Your task to perform on an android device: Open settings Image 0: 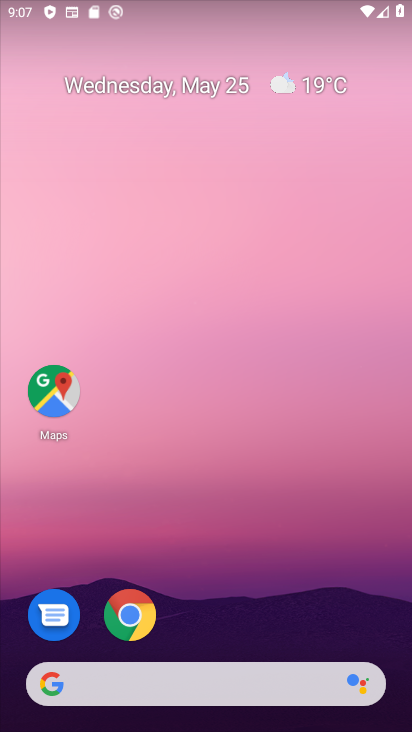
Step 0: drag from (277, 708) to (238, 133)
Your task to perform on an android device: Open settings Image 1: 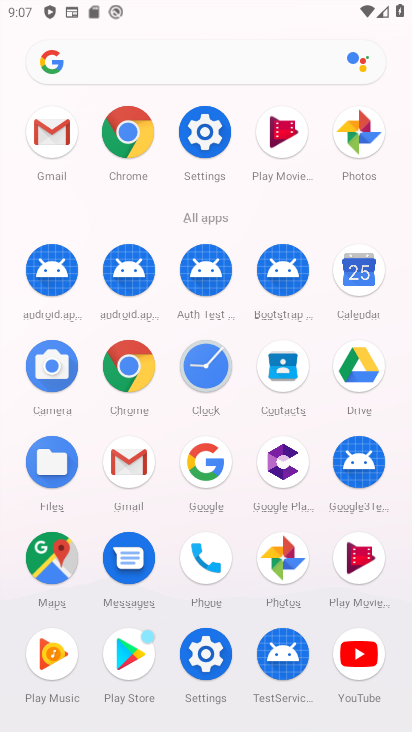
Step 1: click (205, 147)
Your task to perform on an android device: Open settings Image 2: 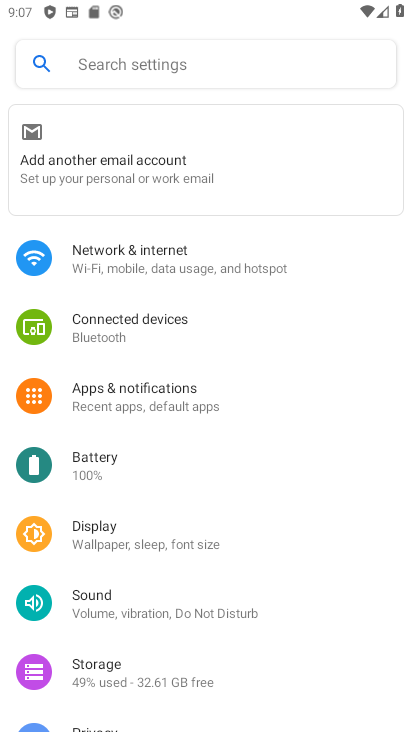
Step 2: task complete